Your task to perform on an android device: change notification settings in the gmail app Image 0: 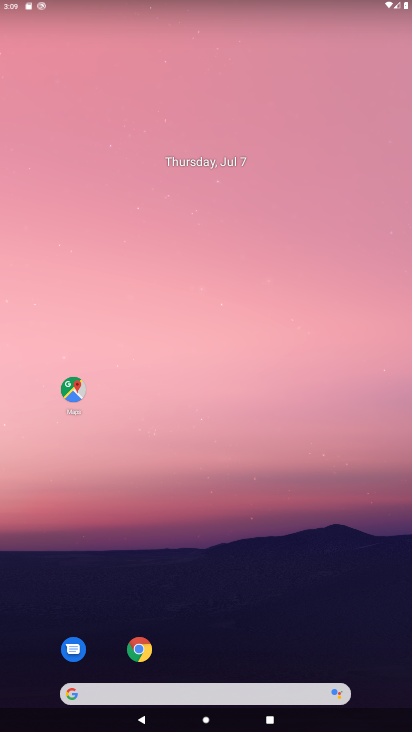
Step 0: drag from (239, 580) to (260, 120)
Your task to perform on an android device: change notification settings in the gmail app Image 1: 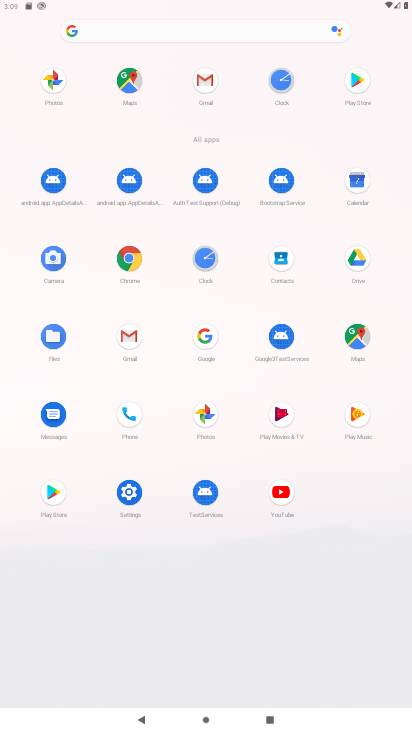
Step 1: click (206, 81)
Your task to perform on an android device: change notification settings in the gmail app Image 2: 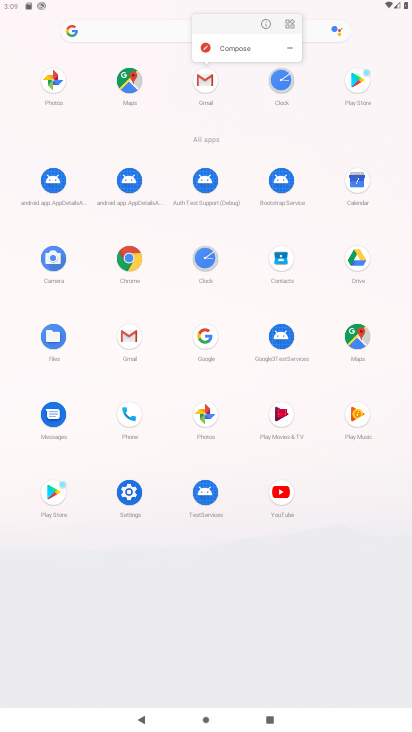
Step 2: click (265, 18)
Your task to perform on an android device: change notification settings in the gmail app Image 3: 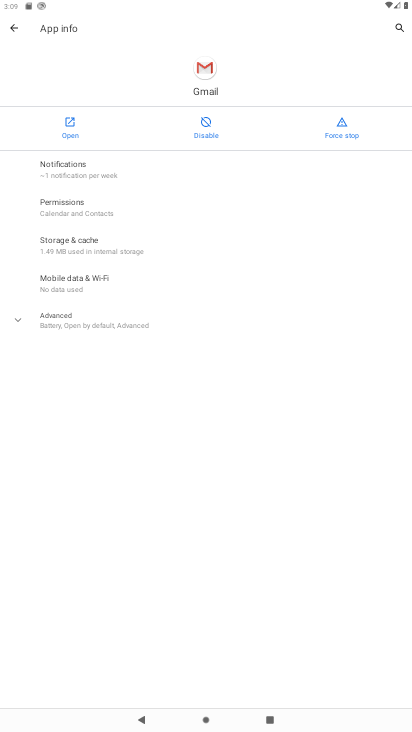
Step 3: click (67, 169)
Your task to perform on an android device: change notification settings in the gmail app Image 4: 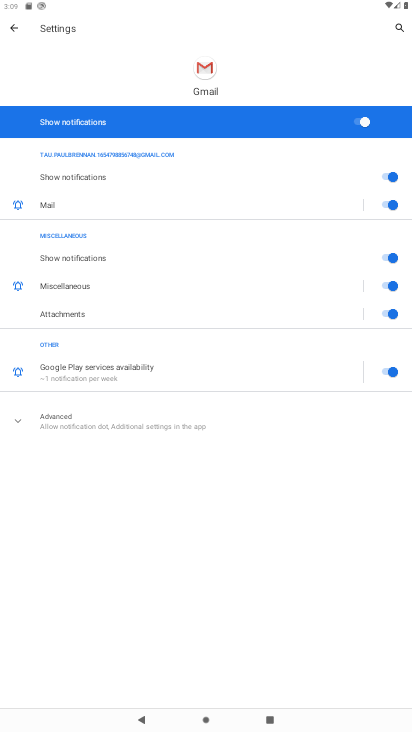
Step 4: click (389, 178)
Your task to perform on an android device: change notification settings in the gmail app Image 5: 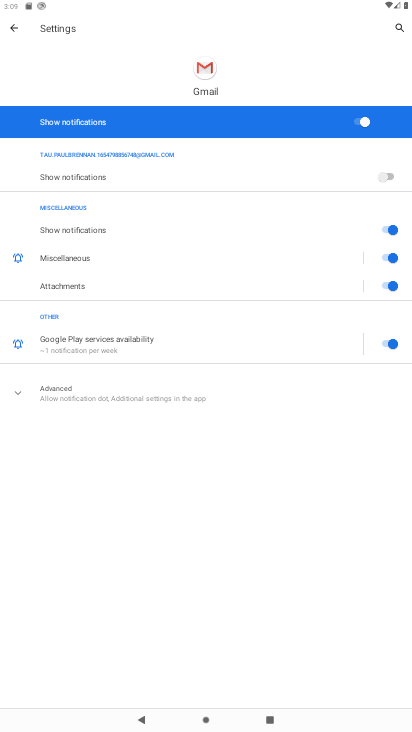
Step 5: task complete